Your task to perform on an android device: Open ESPN.com Image 0: 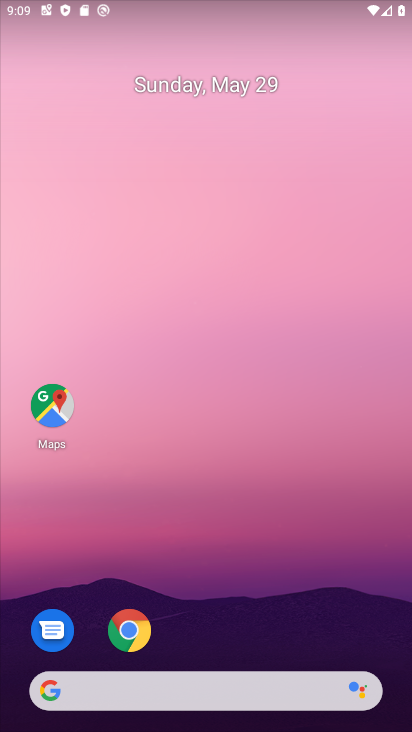
Step 0: click (124, 635)
Your task to perform on an android device: Open ESPN.com Image 1: 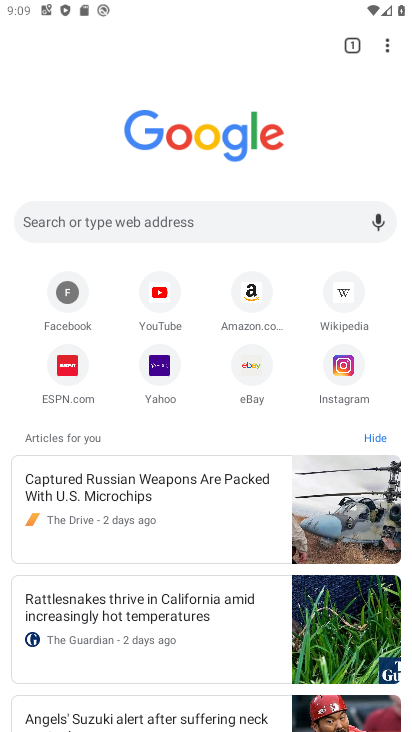
Step 1: click (70, 363)
Your task to perform on an android device: Open ESPN.com Image 2: 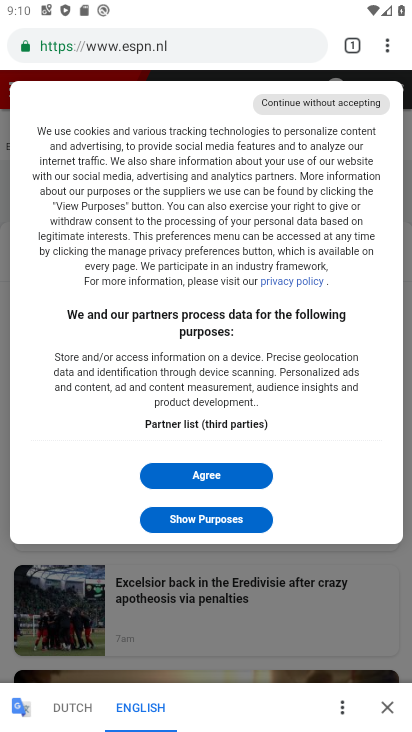
Step 2: task complete